Your task to perform on an android device: turn off javascript in the chrome app Image 0: 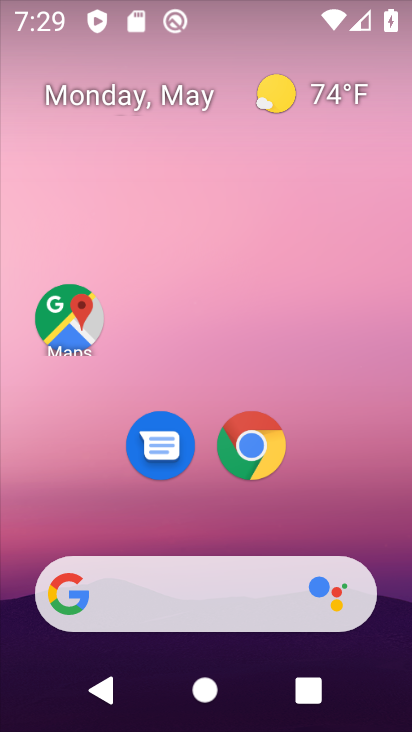
Step 0: click (404, 475)
Your task to perform on an android device: turn off javascript in the chrome app Image 1: 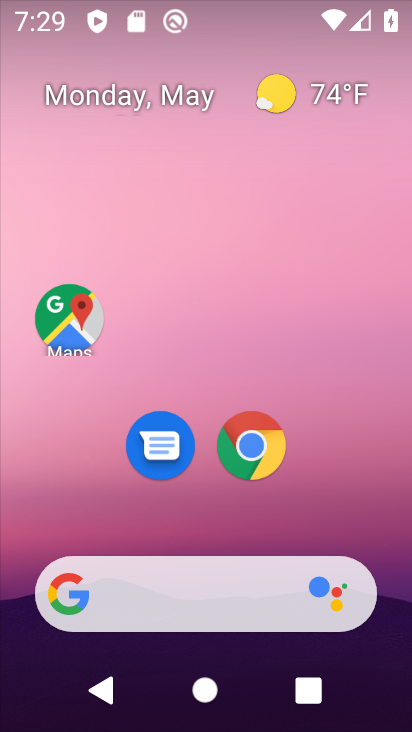
Step 1: drag from (182, 593) to (358, 37)
Your task to perform on an android device: turn off javascript in the chrome app Image 2: 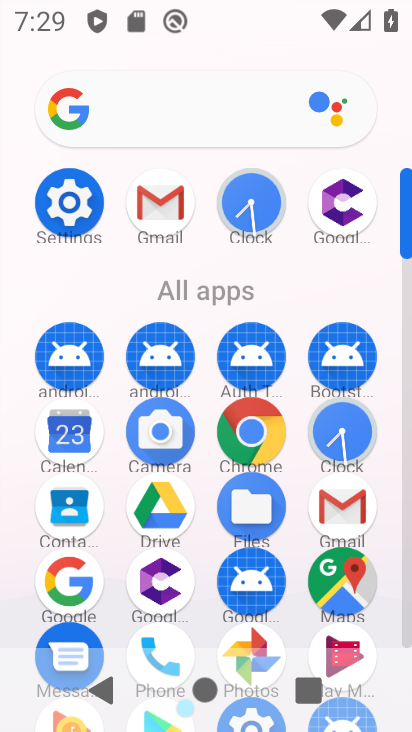
Step 2: click (259, 441)
Your task to perform on an android device: turn off javascript in the chrome app Image 3: 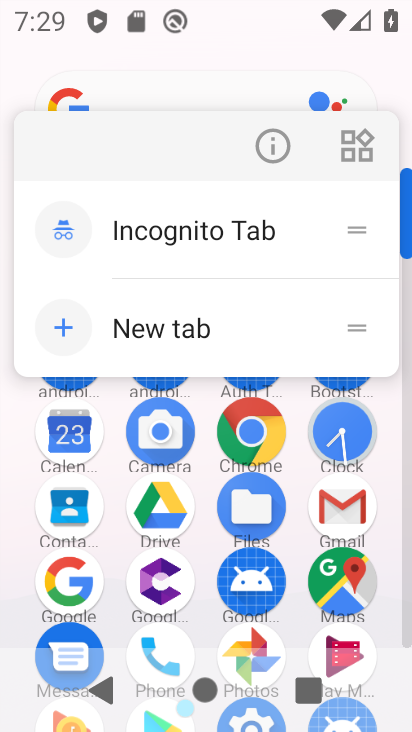
Step 3: click (260, 439)
Your task to perform on an android device: turn off javascript in the chrome app Image 4: 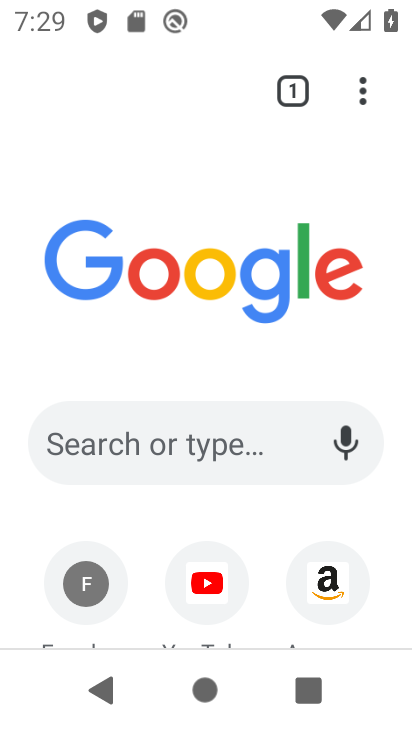
Step 4: drag from (364, 97) to (251, 482)
Your task to perform on an android device: turn off javascript in the chrome app Image 5: 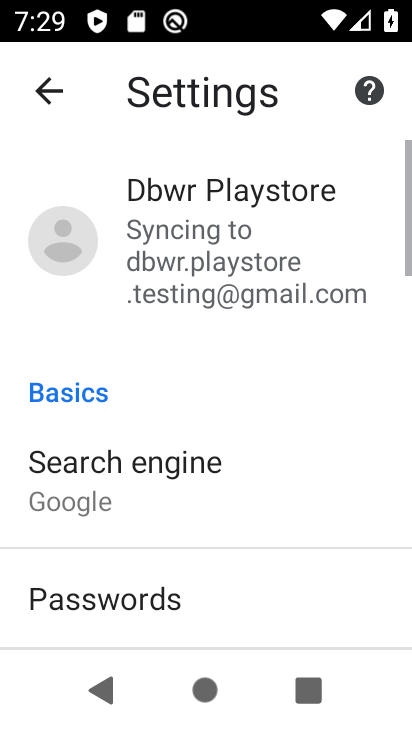
Step 5: drag from (206, 552) to (353, 119)
Your task to perform on an android device: turn off javascript in the chrome app Image 6: 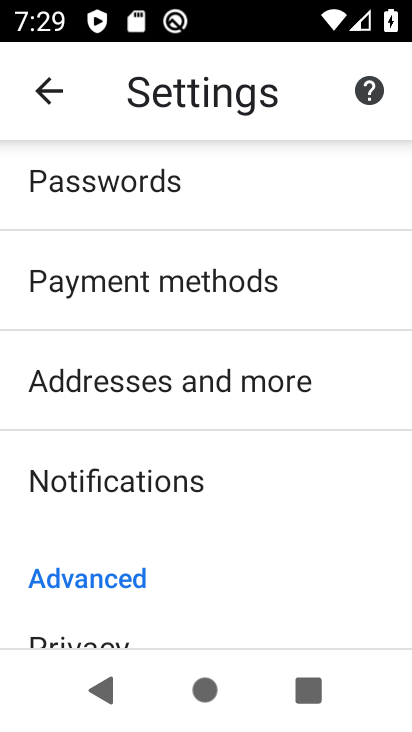
Step 6: drag from (206, 563) to (342, 156)
Your task to perform on an android device: turn off javascript in the chrome app Image 7: 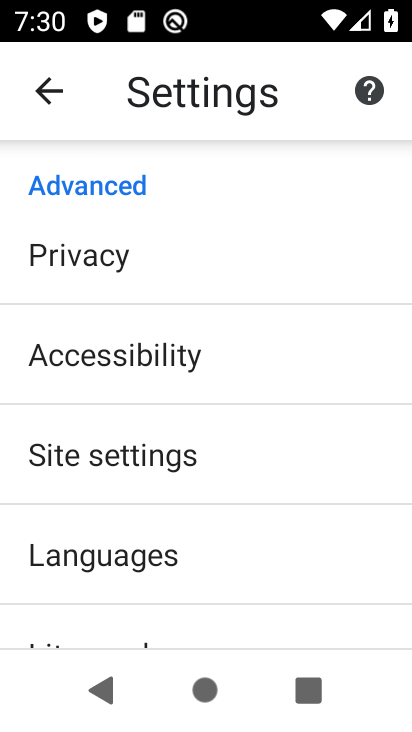
Step 7: click (166, 447)
Your task to perform on an android device: turn off javascript in the chrome app Image 8: 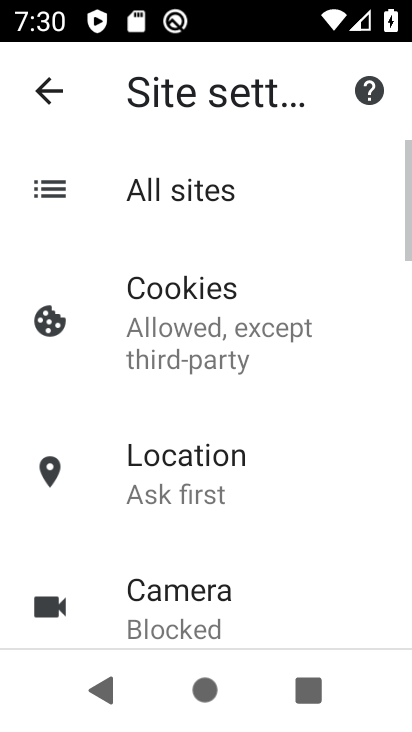
Step 8: drag from (250, 587) to (330, 145)
Your task to perform on an android device: turn off javascript in the chrome app Image 9: 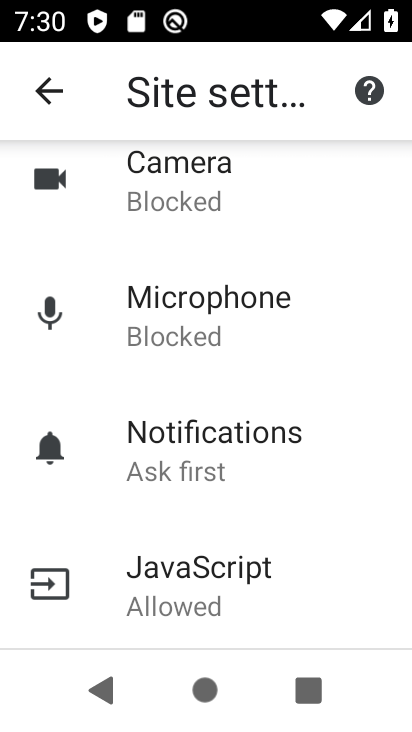
Step 9: click (201, 573)
Your task to perform on an android device: turn off javascript in the chrome app Image 10: 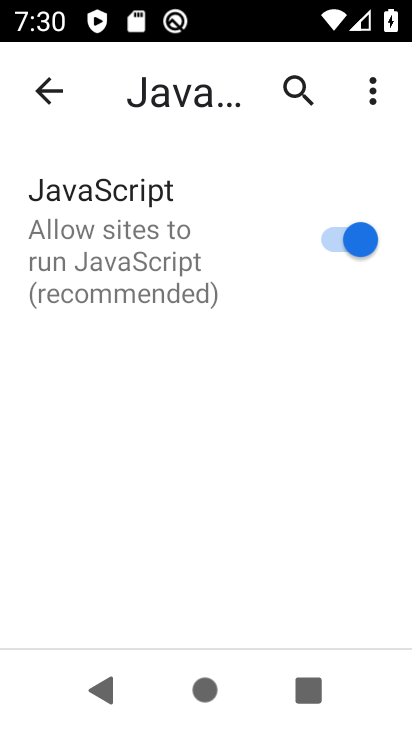
Step 10: click (332, 242)
Your task to perform on an android device: turn off javascript in the chrome app Image 11: 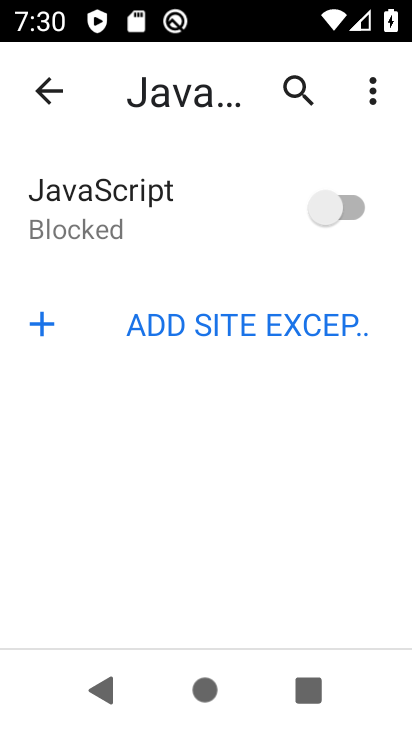
Step 11: task complete